Your task to perform on an android device: Open maps Image 0: 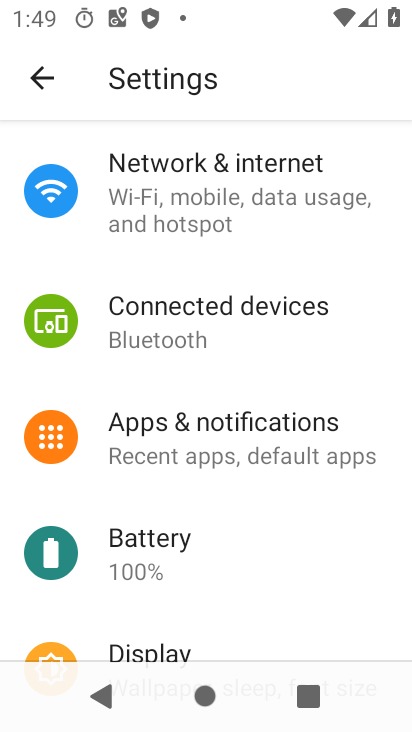
Step 0: press back button
Your task to perform on an android device: Open maps Image 1: 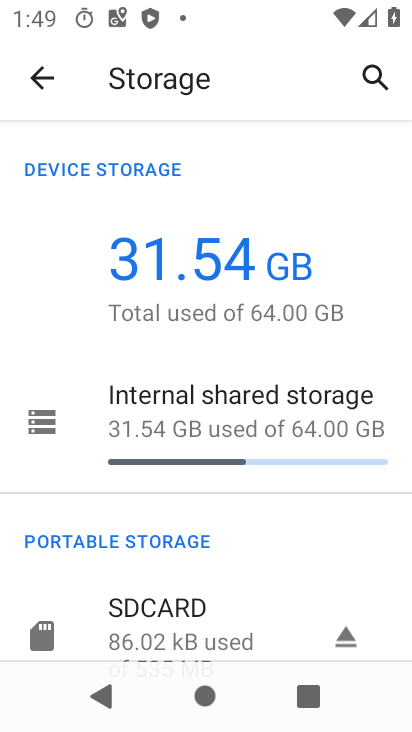
Step 1: press back button
Your task to perform on an android device: Open maps Image 2: 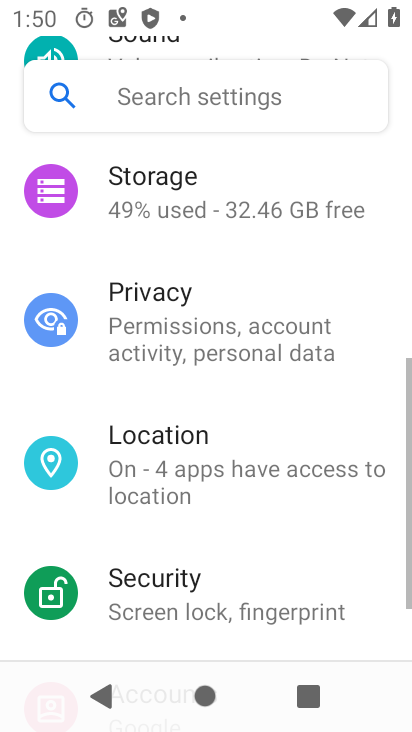
Step 2: press back button
Your task to perform on an android device: Open maps Image 3: 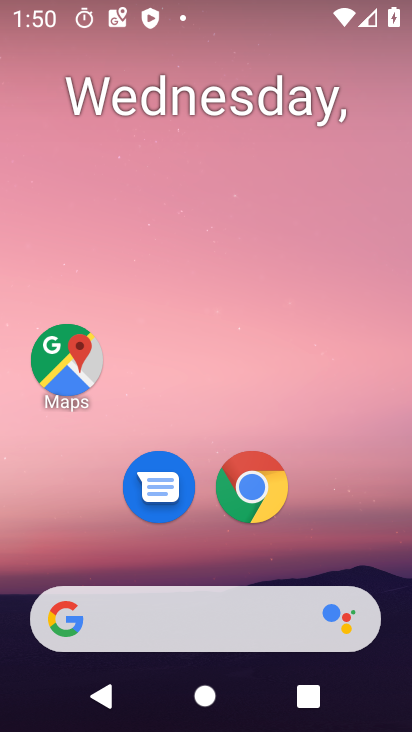
Step 3: click (62, 386)
Your task to perform on an android device: Open maps Image 4: 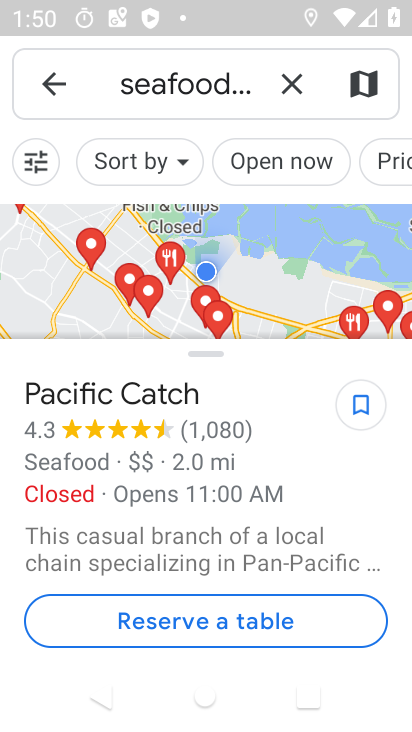
Step 4: task complete